Your task to perform on an android device: turn off data saver in the chrome app Image 0: 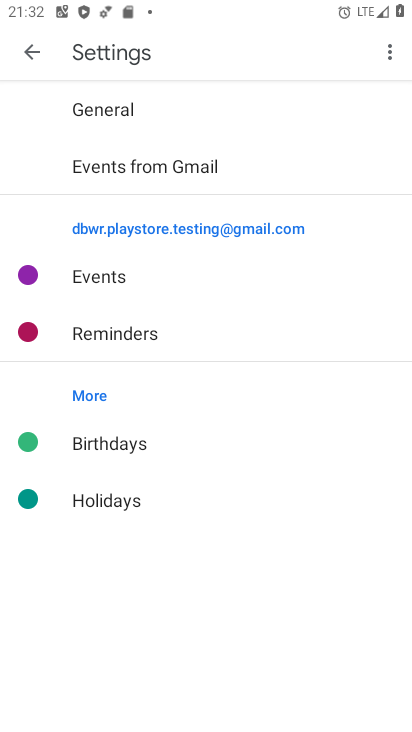
Step 0: press home button
Your task to perform on an android device: turn off data saver in the chrome app Image 1: 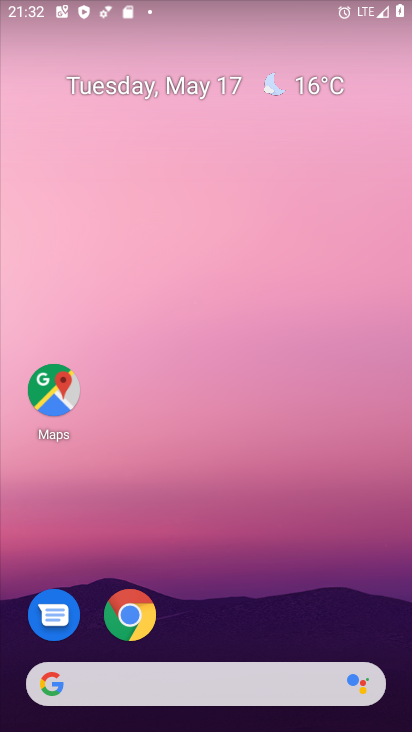
Step 1: click (134, 603)
Your task to perform on an android device: turn off data saver in the chrome app Image 2: 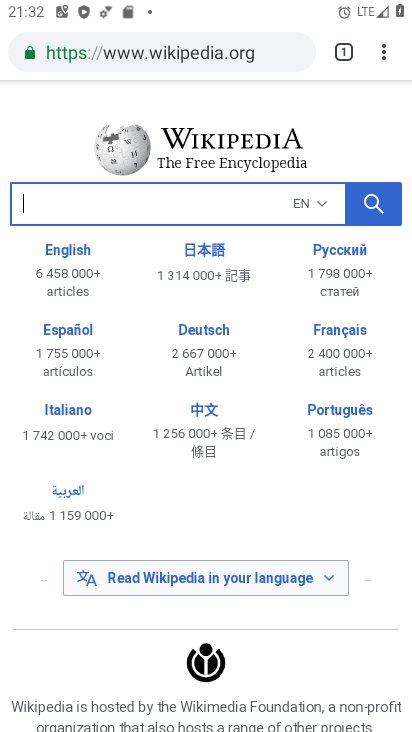
Step 2: click (384, 64)
Your task to perform on an android device: turn off data saver in the chrome app Image 3: 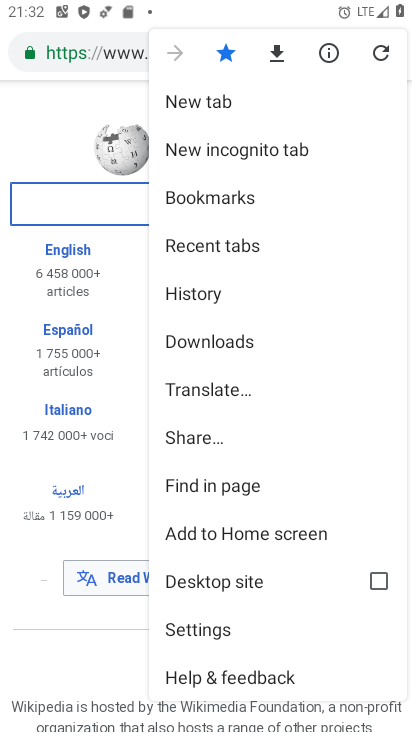
Step 3: click (214, 625)
Your task to perform on an android device: turn off data saver in the chrome app Image 4: 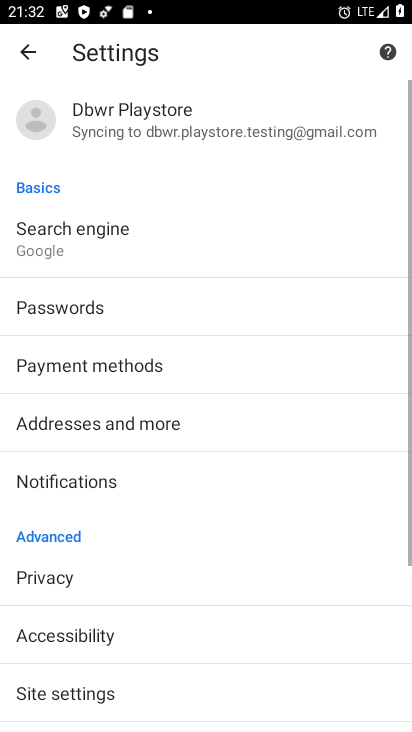
Step 4: drag from (128, 616) to (114, 167)
Your task to perform on an android device: turn off data saver in the chrome app Image 5: 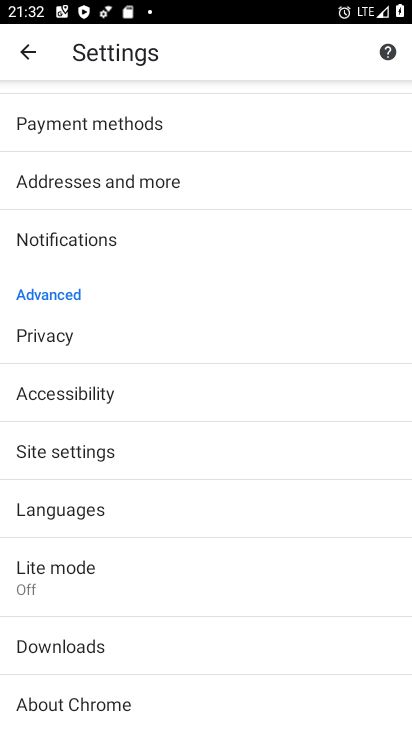
Step 5: click (88, 558)
Your task to perform on an android device: turn off data saver in the chrome app Image 6: 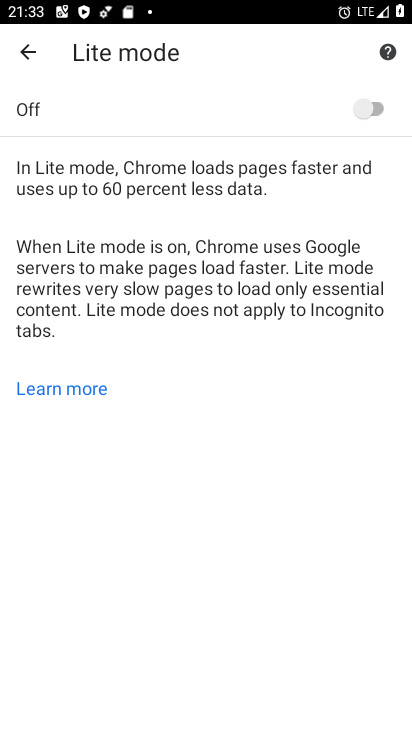
Step 6: task complete